Your task to perform on an android device: What's the weather? Image 0: 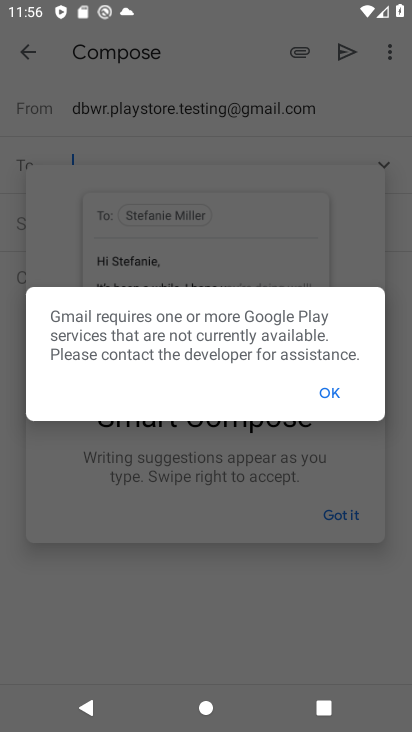
Step 0: press home button
Your task to perform on an android device: What's the weather? Image 1: 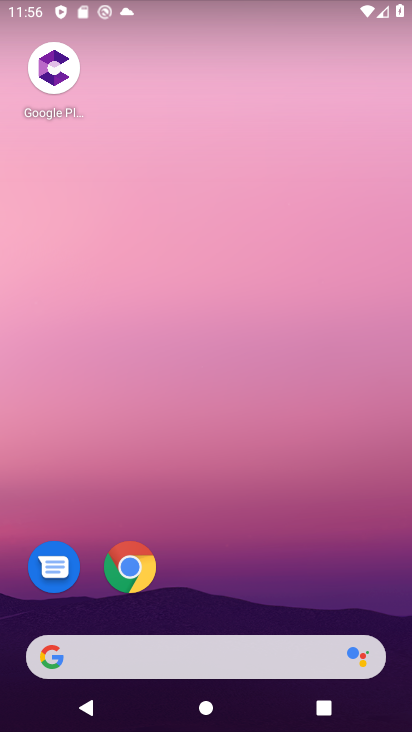
Step 1: drag from (388, 441) to (0, 430)
Your task to perform on an android device: What's the weather? Image 2: 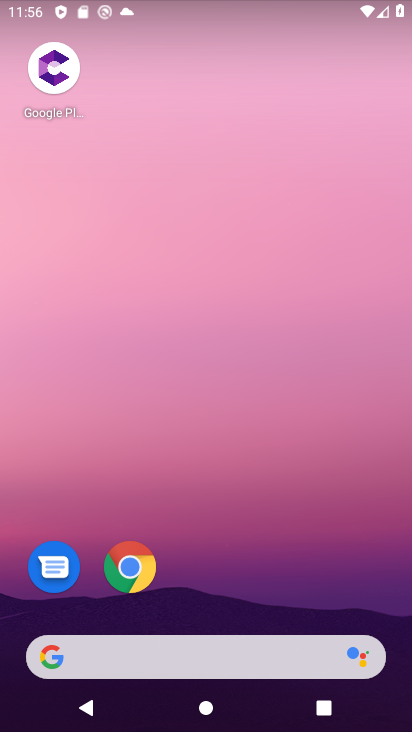
Step 2: drag from (50, 387) to (370, 393)
Your task to perform on an android device: What's the weather? Image 3: 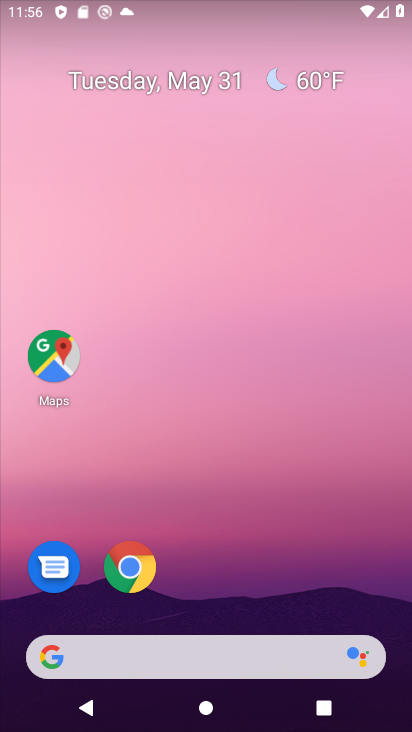
Step 3: click (293, 76)
Your task to perform on an android device: What's the weather? Image 4: 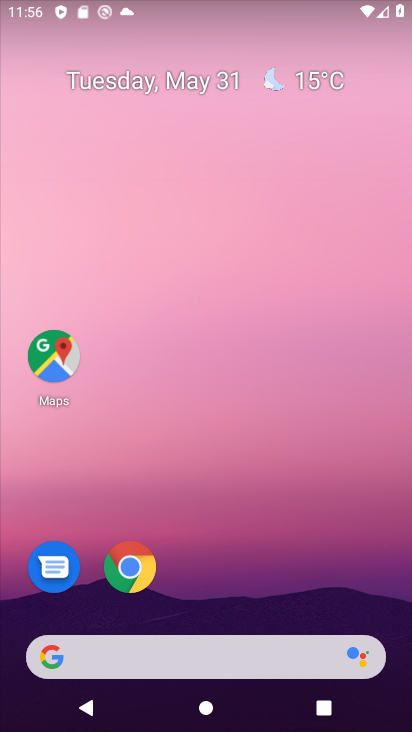
Step 4: click (317, 93)
Your task to perform on an android device: What's the weather? Image 5: 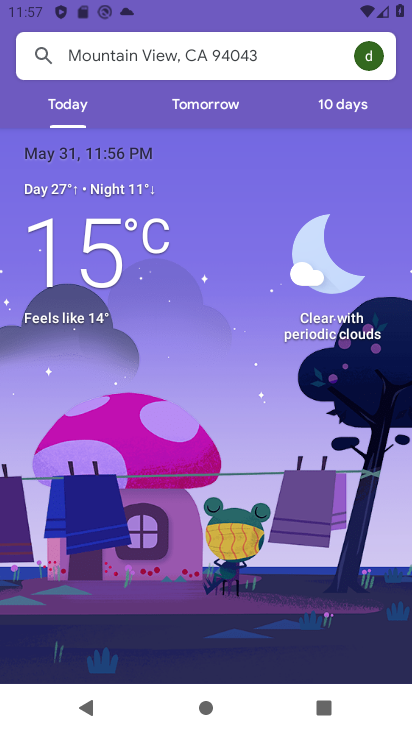
Step 5: task complete